Your task to perform on an android device: turn notification dots off Image 0: 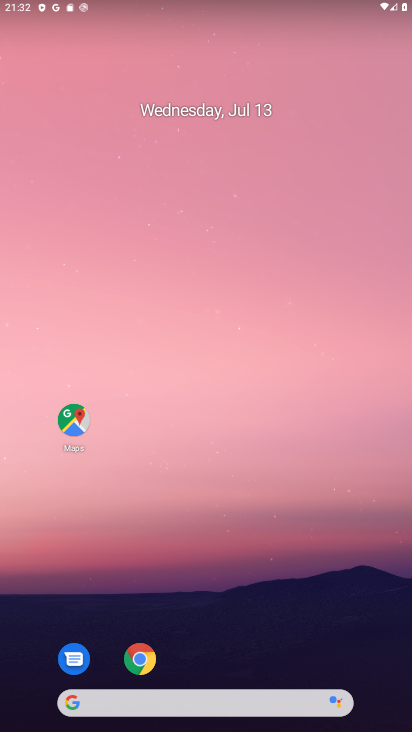
Step 0: drag from (186, 649) to (196, 201)
Your task to perform on an android device: turn notification dots off Image 1: 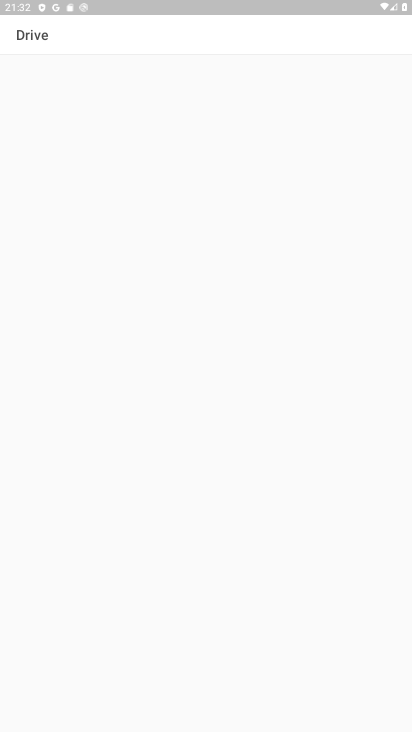
Step 1: press home button
Your task to perform on an android device: turn notification dots off Image 2: 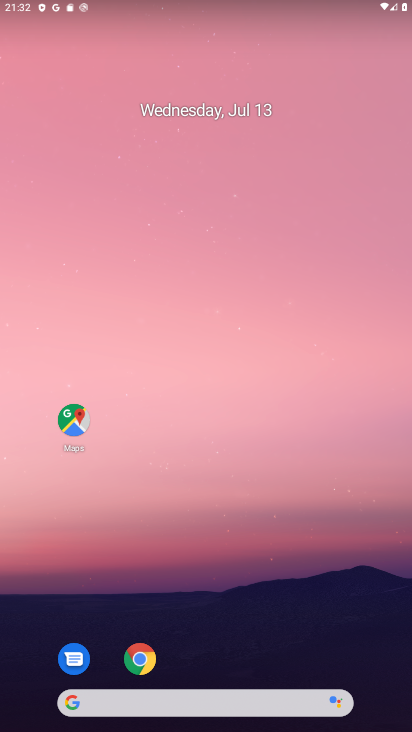
Step 2: drag from (232, 655) to (210, 323)
Your task to perform on an android device: turn notification dots off Image 3: 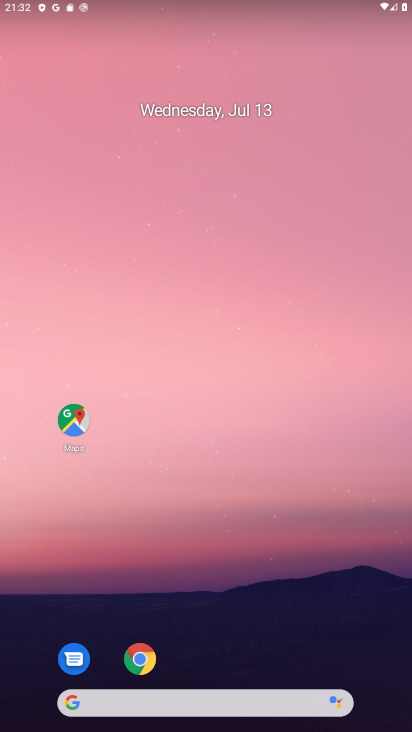
Step 3: drag from (224, 624) to (219, 221)
Your task to perform on an android device: turn notification dots off Image 4: 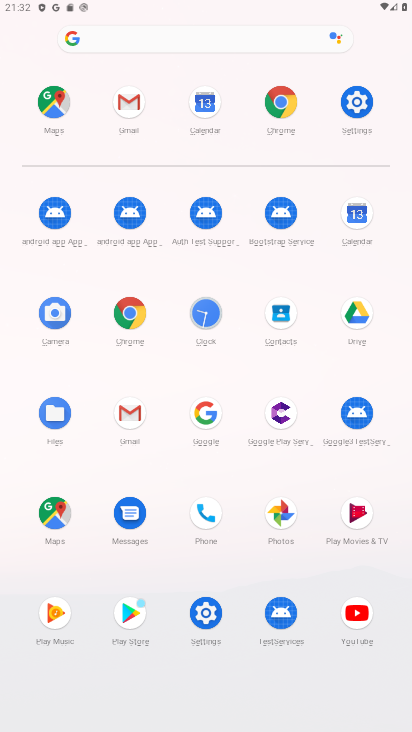
Step 4: click (348, 95)
Your task to perform on an android device: turn notification dots off Image 5: 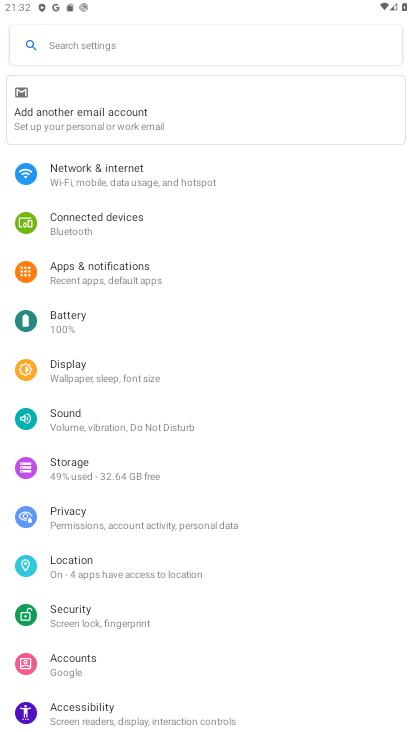
Step 5: click (103, 276)
Your task to perform on an android device: turn notification dots off Image 6: 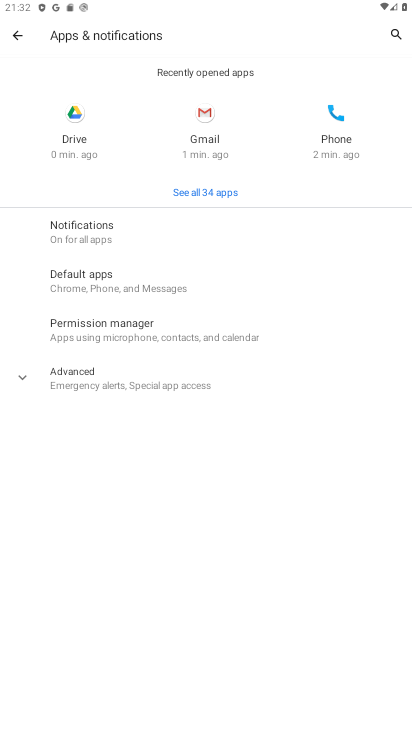
Step 6: click (111, 246)
Your task to perform on an android device: turn notification dots off Image 7: 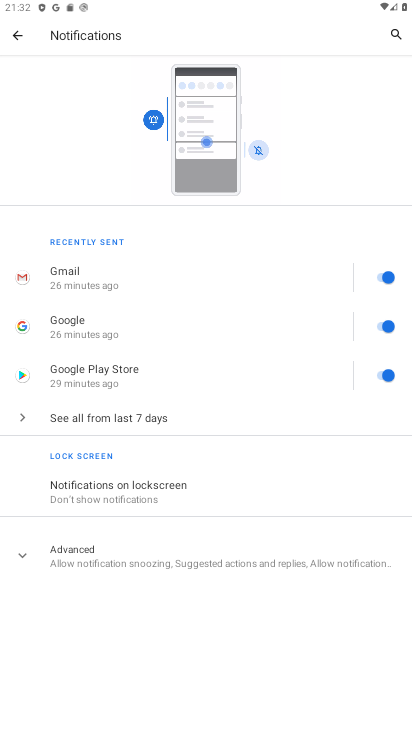
Step 7: click (122, 496)
Your task to perform on an android device: turn notification dots off Image 8: 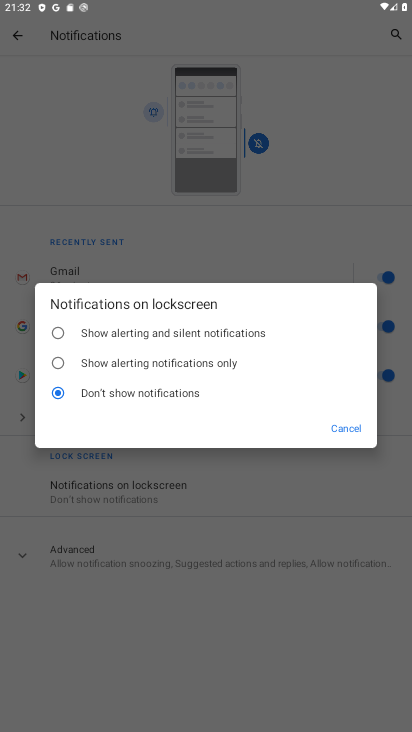
Step 8: task complete